Your task to perform on an android device: search for starred emails in the gmail app Image 0: 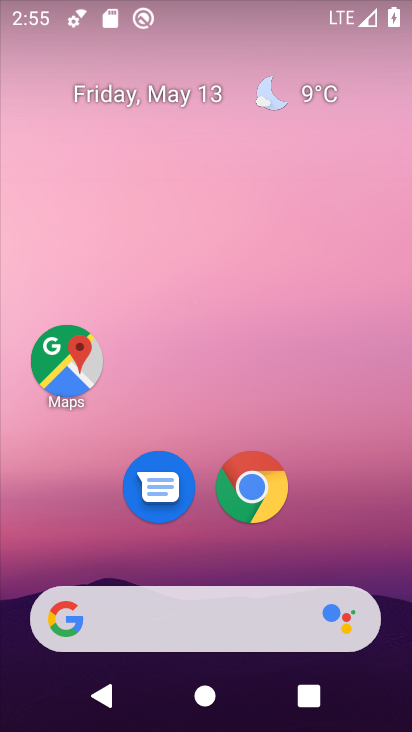
Step 0: drag from (190, 606) to (283, 88)
Your task to perform on an android device: search for starred emails in the gmail app Image 1: 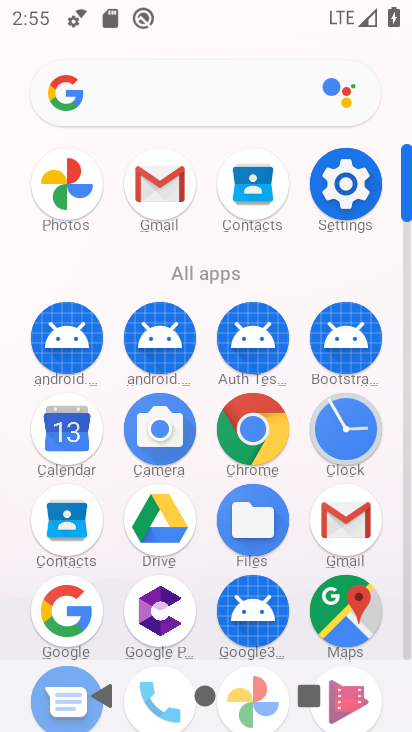
Step 1: click (144, 201)
Your task to perform on an android device: search for starred emails in the gmail app Image 2: 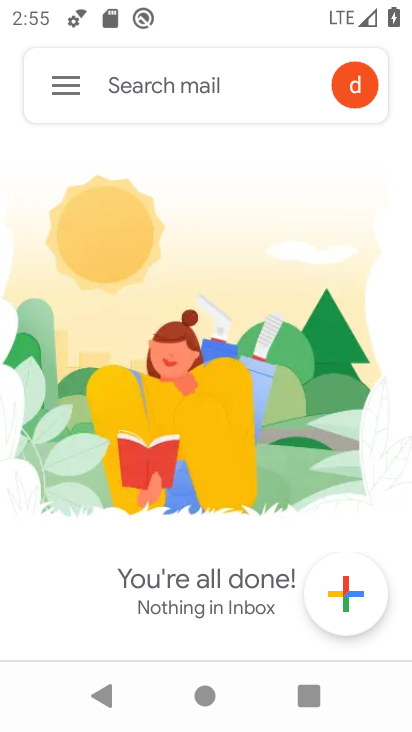
Step 2: click (46, 94)
Your task to perform on an android device: search for starred emails in the gmail app Image 3: 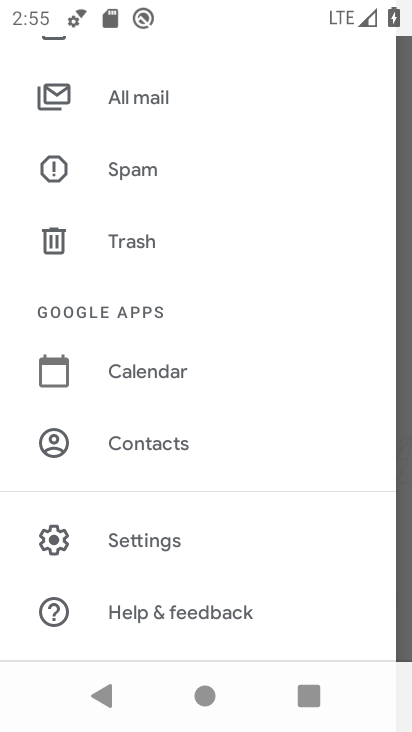
Step 3: drag from (173, 179) to (165, 462)
Your task to perform on an android device: search for starred emails in the gmail app Image 4: 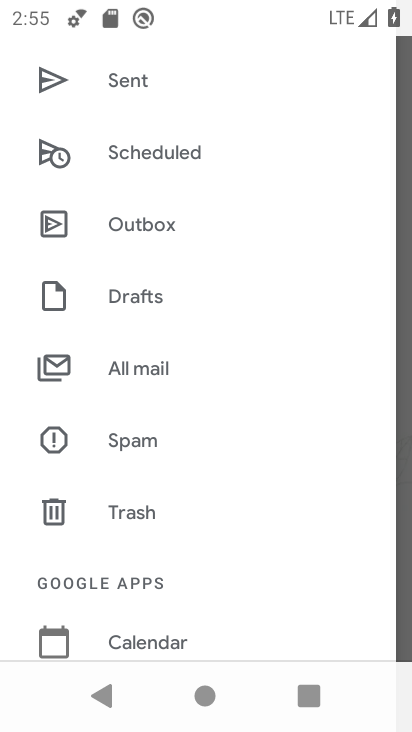
Step 4: drag from (160, 200) to (177, 602)
Your task to perform on an android device: search for starred emails in the gmail app Image 5: 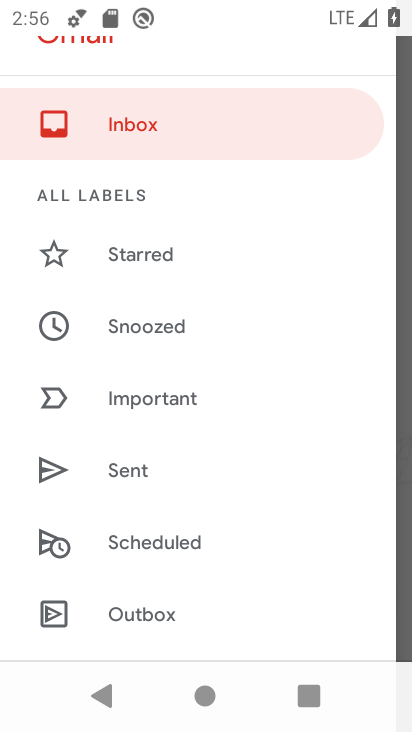
Step 5: click (144, 255)
Your task to perform on an android device: search for starred emails in the gmail app Image 6: 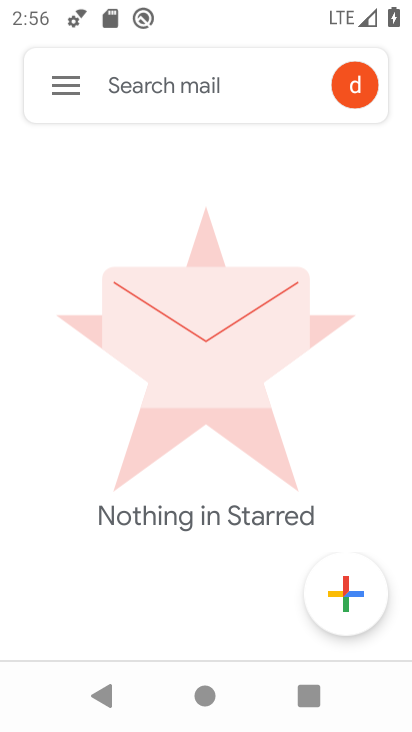
Step 6: task complete